Your task to perform on an android device: Open wifi settings Image 0: 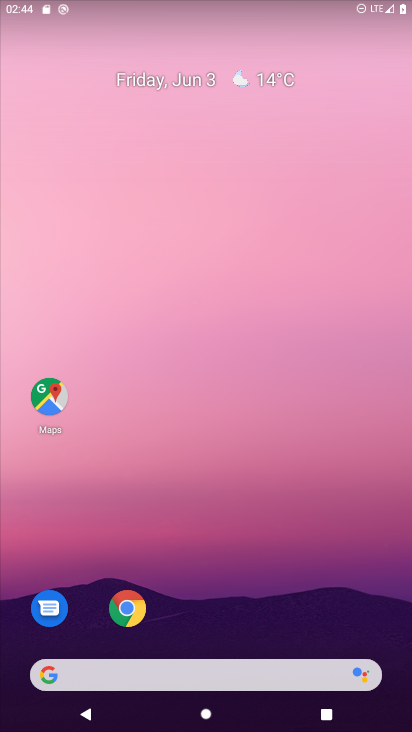
Step 0: drag from (225, 447) to (262, 144)
Your task to perform on an android device: Open wifi settings Image 1: 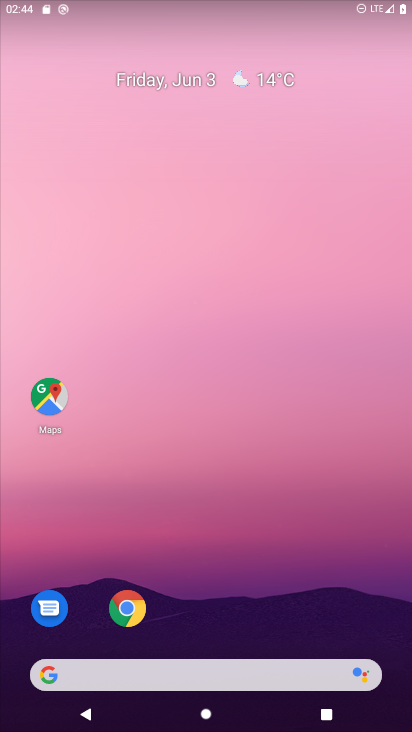
Step 1: drag from (227, 609) to (249, 144)
Your task to perform on an android device: Open wifi settings Image 2: 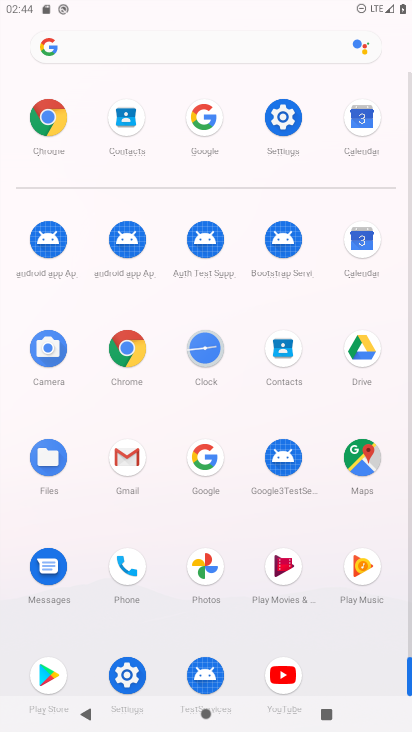
Step 2: click (275, 119)
Your task to perform on an android device: Open wifi settings Image 3: 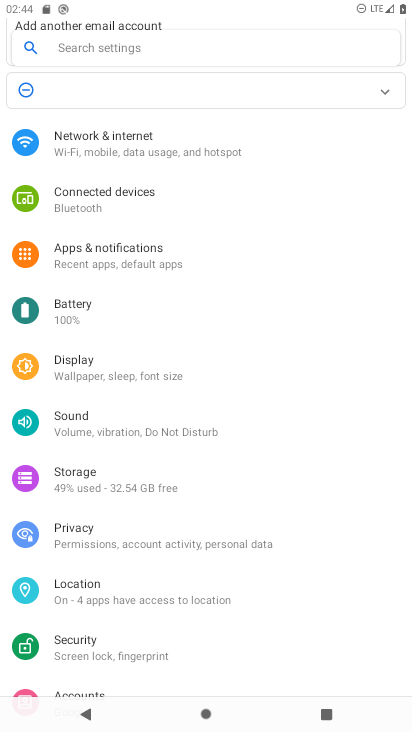
Step 3: click (121, 146)
Your task to perform on an android device: Open wifi settings Image 4: 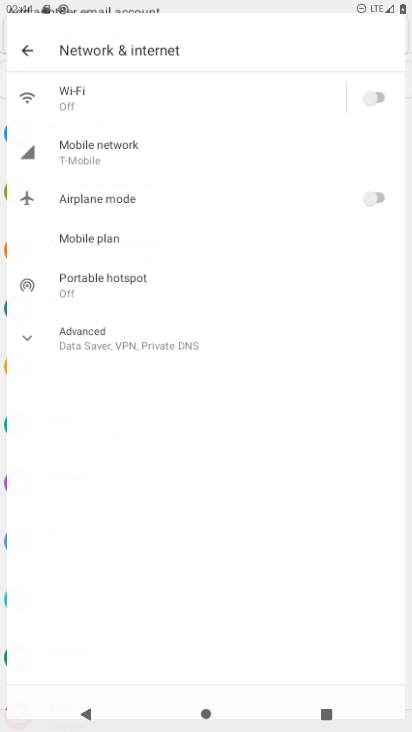
Step 4: click (41, 93)
Your task to perform on an android device: Open wifi settings Image 5: 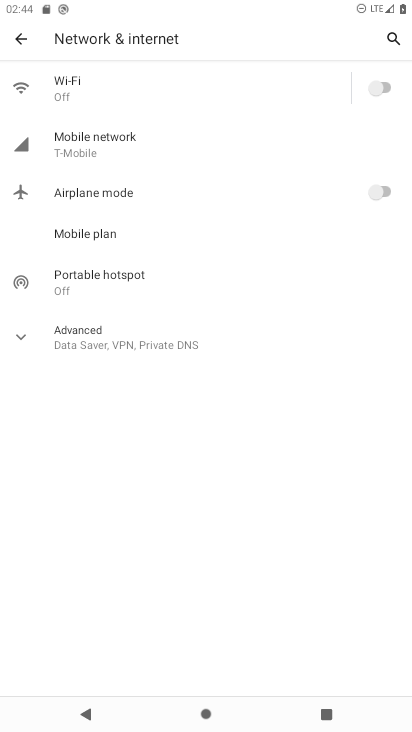
Step 5: click (113, 98)
Your task to perform on an android device: Open wifi settings Image 6: 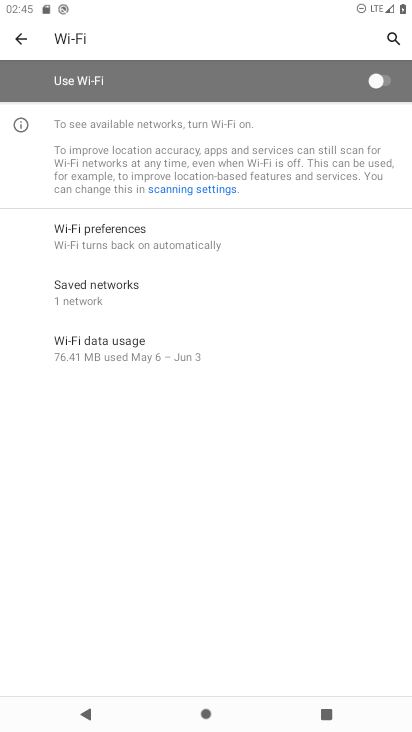
Step 6: click (377, 82)
Your task to perform on an android device: Open wifi settings Image 7: 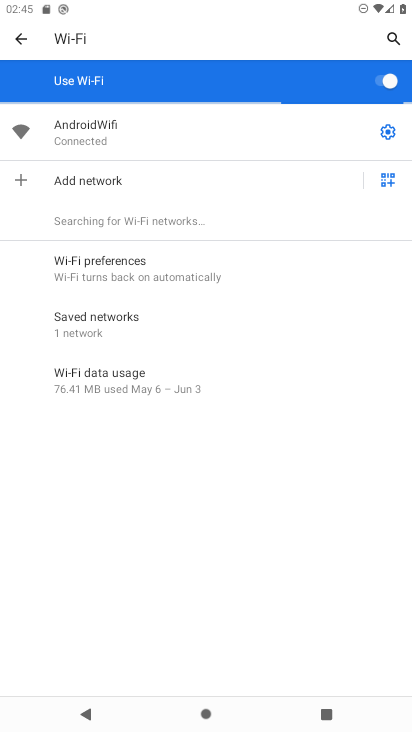
Step 7: click (390, 132)
Your task to perform on an android device: Open wifi settings Image 8: 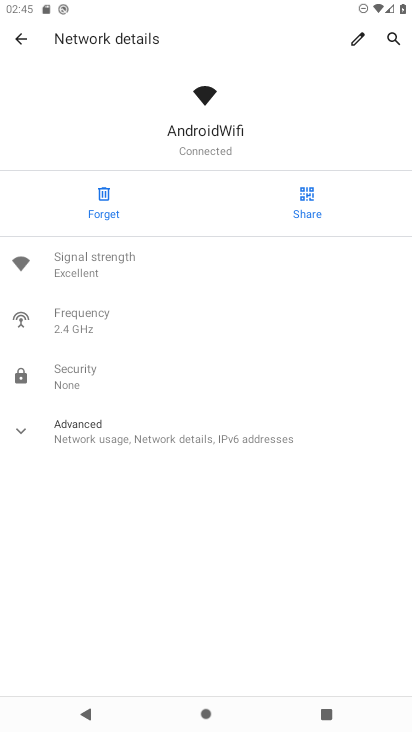
Step 8: task complete